Your task to perform on an android device: move a message to another label in the gmail app Image 0: 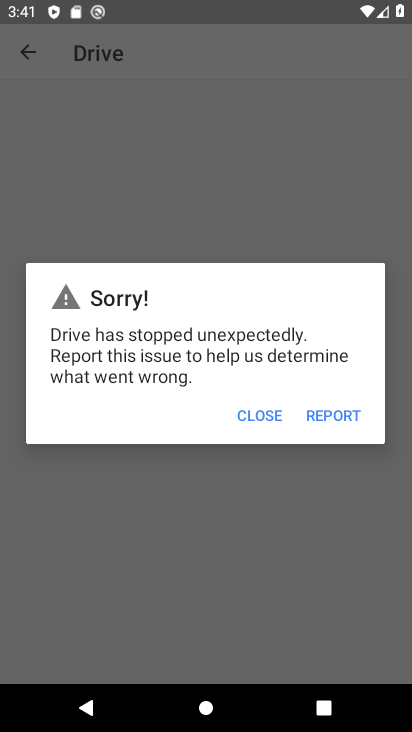
Step 0: press home button
Your task to perform on an android device: move a message to another label in the gmail app Image 1: 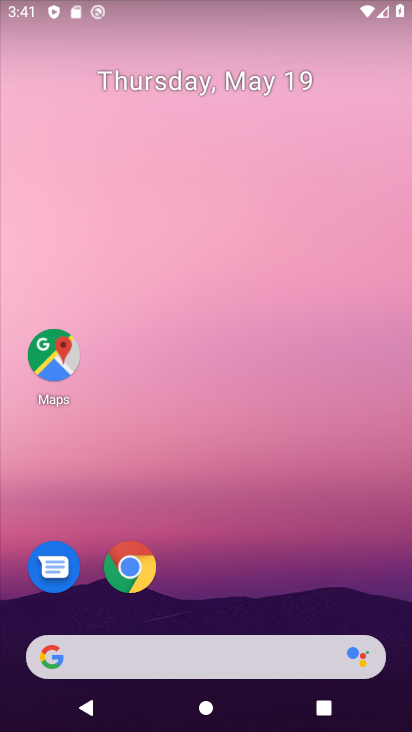
Step 1: drag from (244, 619) to (111, 5)
Your task to perform on an android device: move a message to another label in the gmail app Image 2: 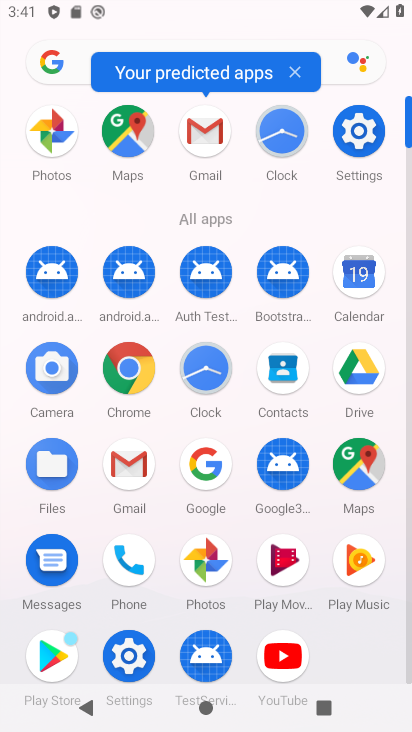
Step 2: click (127, 465)
Your task to perform on an android device: move a message to another label in the gmail app Image 3: 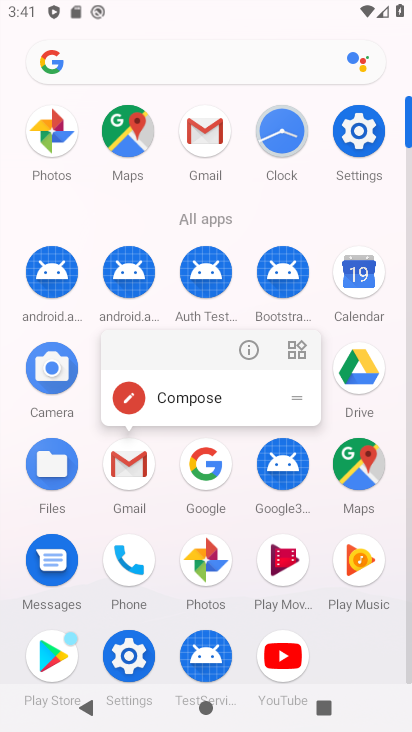
Step 3: click (129, 484)
Your task to perform on an android device: move a message to another label in the gmail app Image 4: 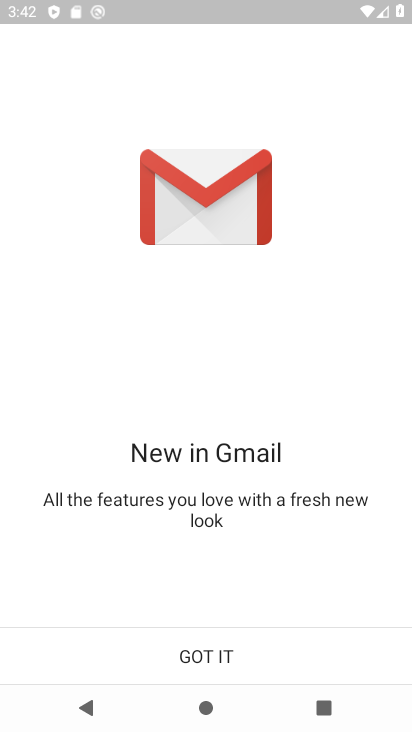
Step 4: click (195, 644)
Your task to perform on an android device: move a message to another label in the gmail app Image 5: 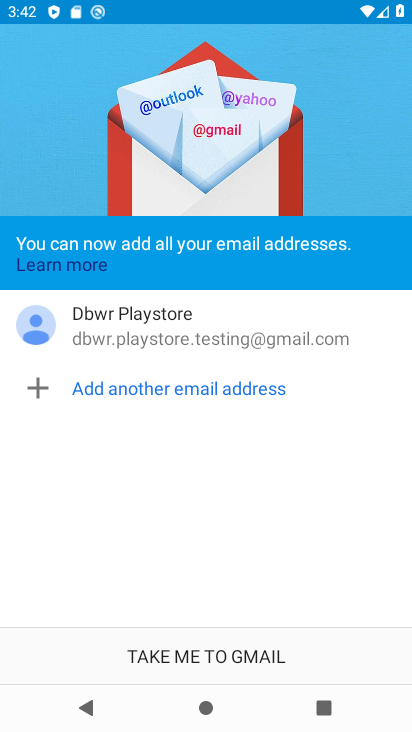
Step 5: click (195, 644)
Your task to perform on an android device: move a message to another label in the gmail app Image 6: 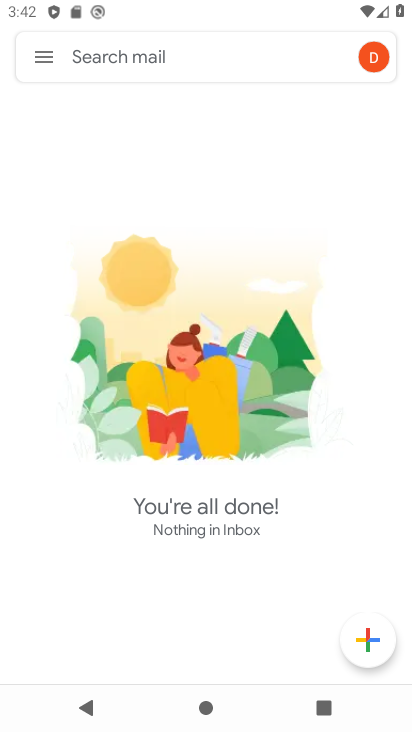
Step 6: click (47, 62)
Your task to perform on an android device: move a message to another label in the gmail app Image 7: 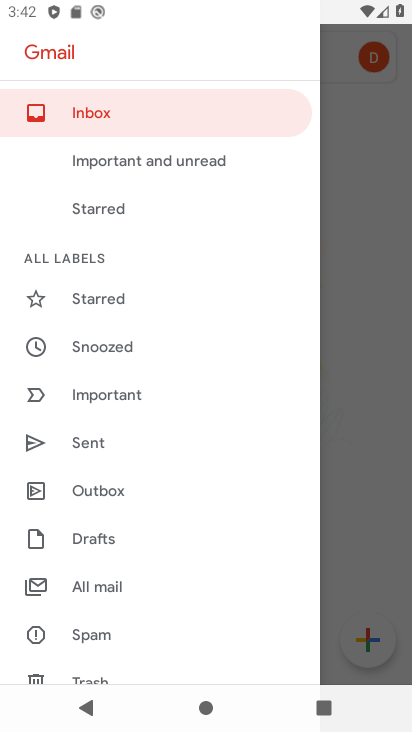
Step 7: click (108, 595)
Your task to perform on an android device: move a message to another label in the gmail app Image 8: 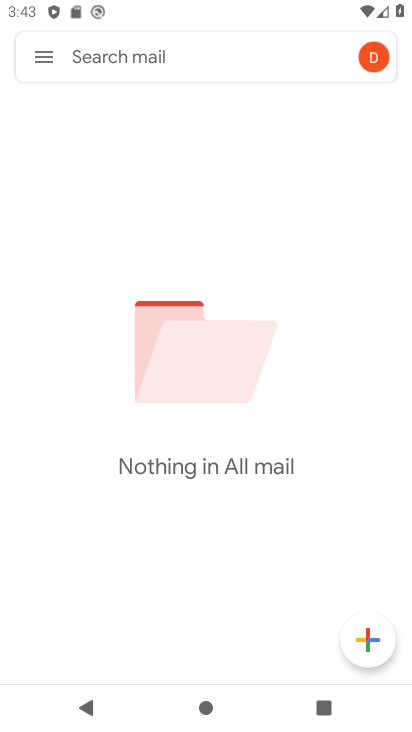
Step 8: task complete